Your task to perform on an android device: allow cookies in the chrome app Image 0: 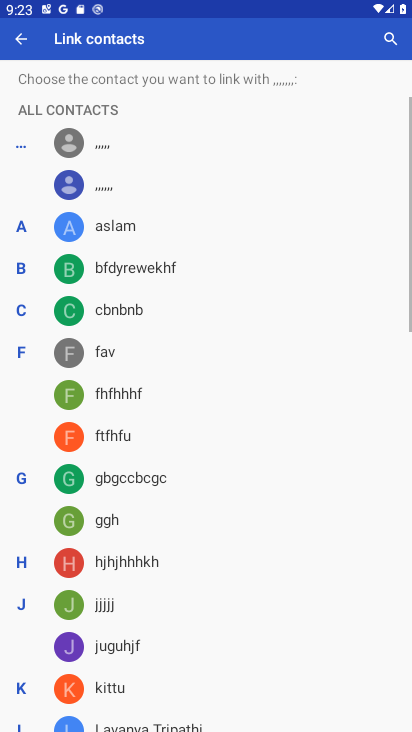
Step 0: press back button
Your task to perform on an android device: allow cookies in the chrome app Image 1: 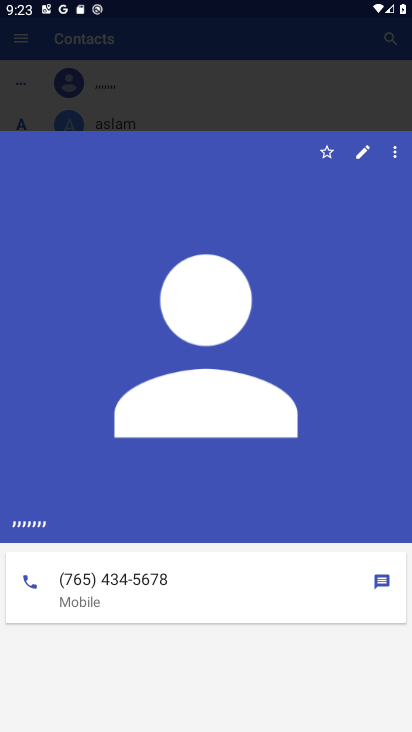
Step 1: press home button
Your task to perform on an android device: allow cookies in the chrome app Image 2: 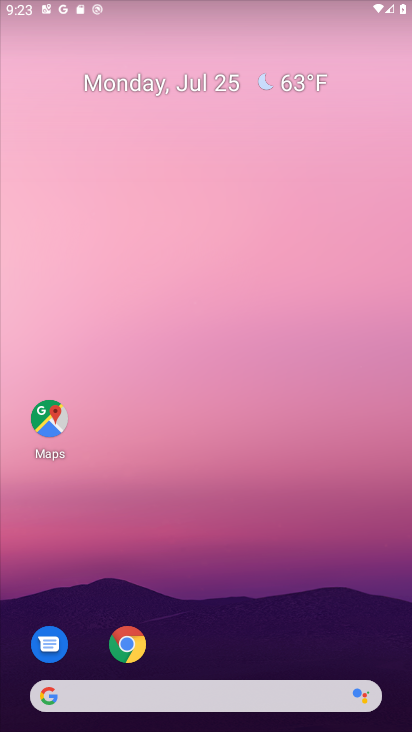
Step 2: drag from (263, 575) to (201, 176)
Your task to perform on an android device: allow cookies in the chrome app Image 3: 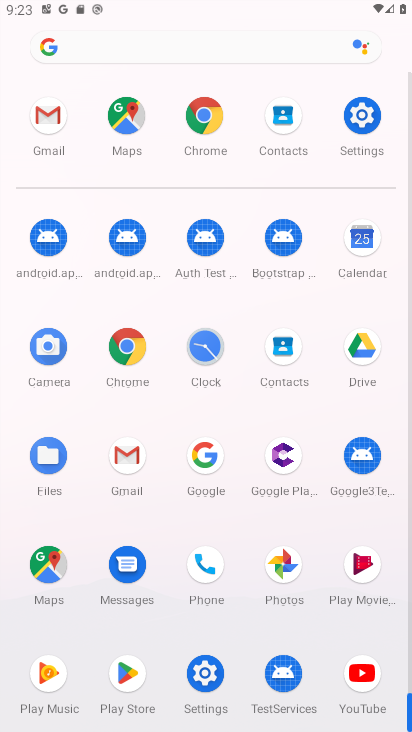
Step 3: click (200, 123)
Your task to perform on an android device: allow cookies in the chrome app Image 4: 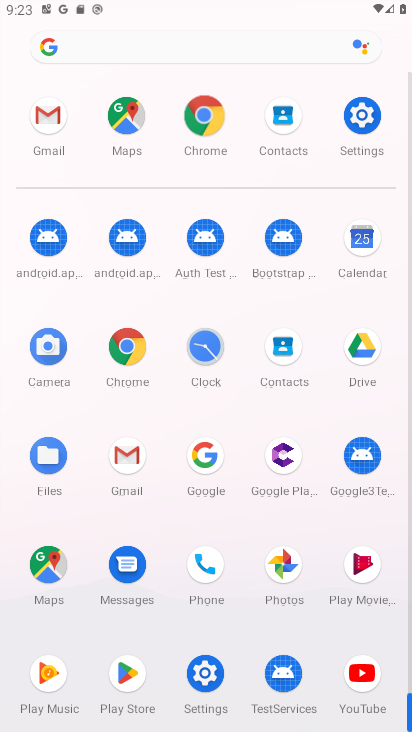
Step 4: click (205, 121)
Your task to perform on an android device: allow cookies in the chrome app Image 5: 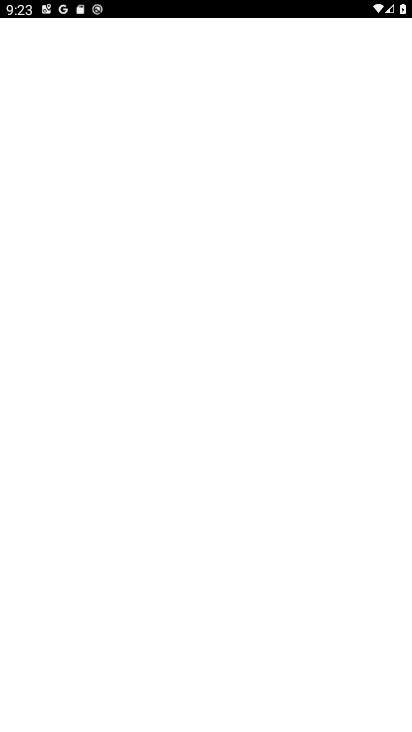
Step 5: click (206, 122)
Your task to perform on an android device: allow cookies in the chrome app Image 6: 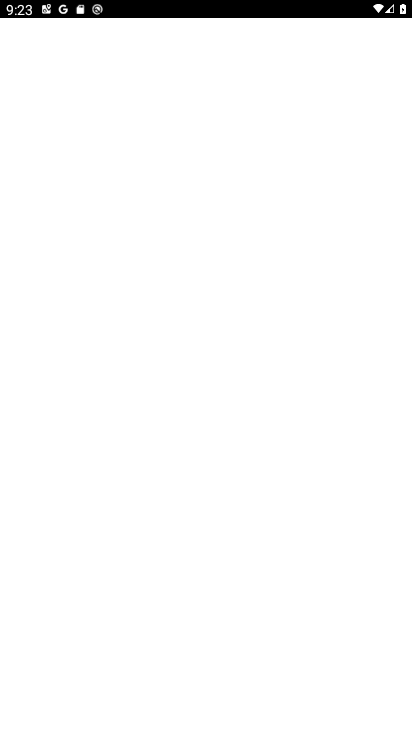
Step 6: click (206, 122)
Your task to perform on an android device: allow cookies in the chrome app Image 7: 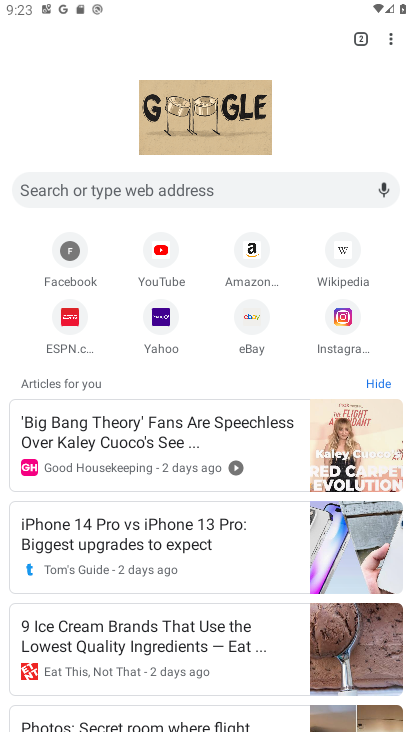
Step 7: click (383, 41)
Your task to perform on an android device: allow cookies in the chrome app Image 8: 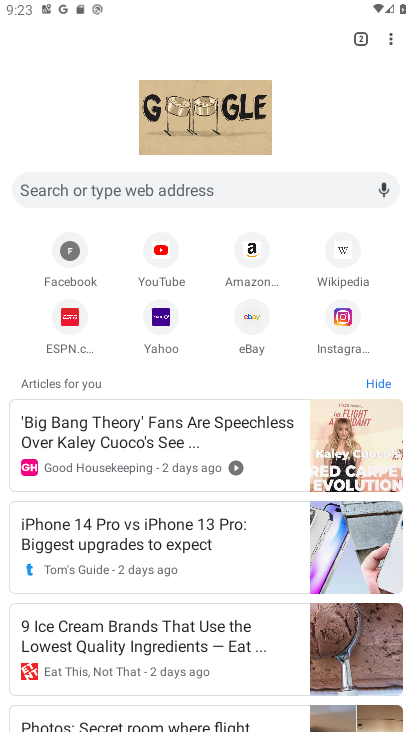
Step 8: click (393, 40)
Your task to perform on an android device: allow cookies in the chrome app Image 9: 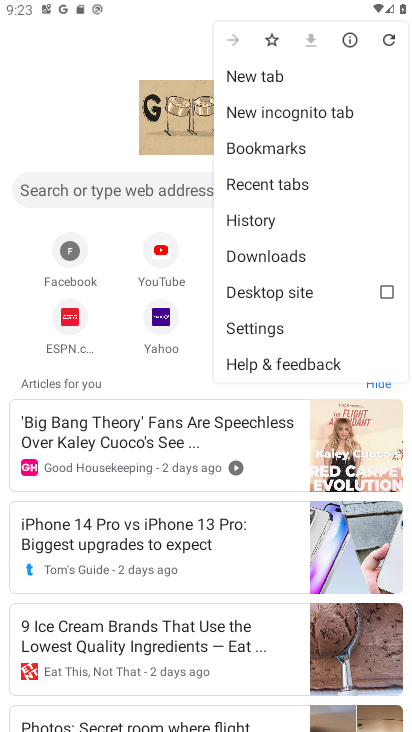
Step 9: click (262, 331)
Your task to perform on an android device: allow cookies in the chrome app Image 10: 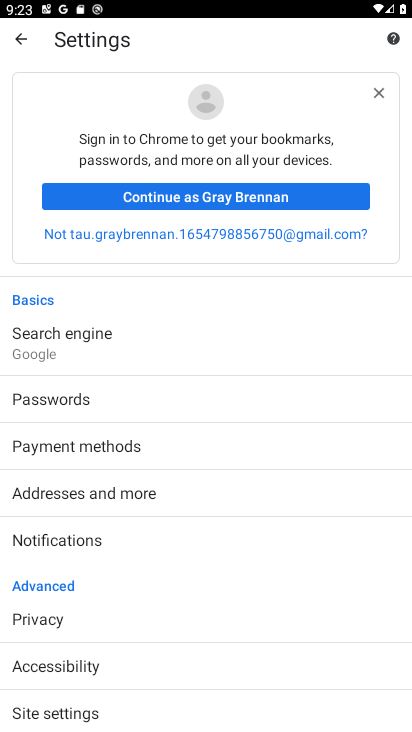
Step 10: drag from (119, 513) to (119, 258)
Your task to perform on an android device: allow cookies in the chrome app Image 11: 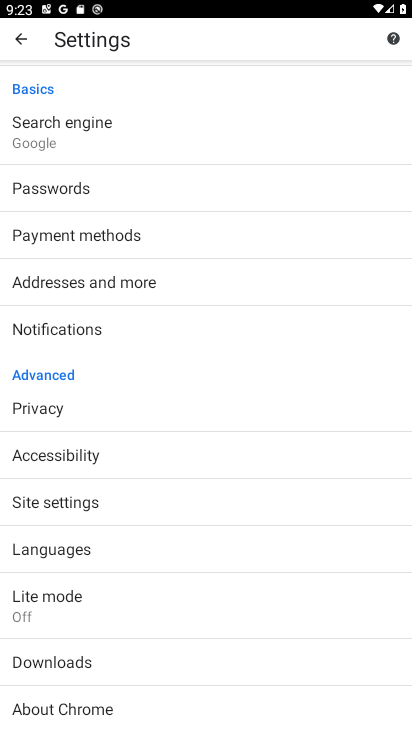
Step 11: click (36, 501)
Your task to perform on an android device: allow cookies in the chrome app Image 12: 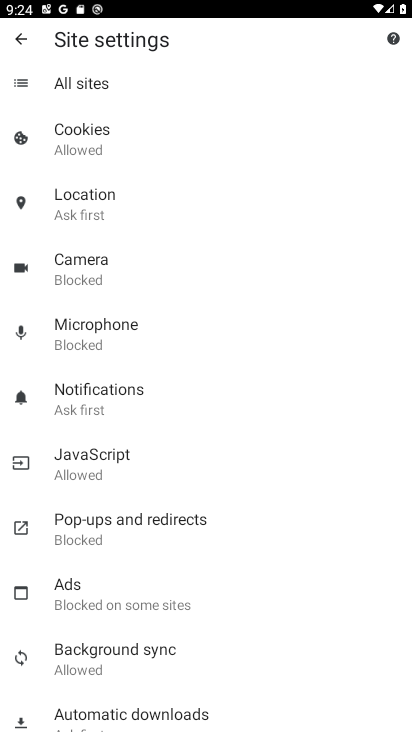
Step 12: click (86, 146)
Your task to perform on an android device: allow cookies in the chrome app Image 13: 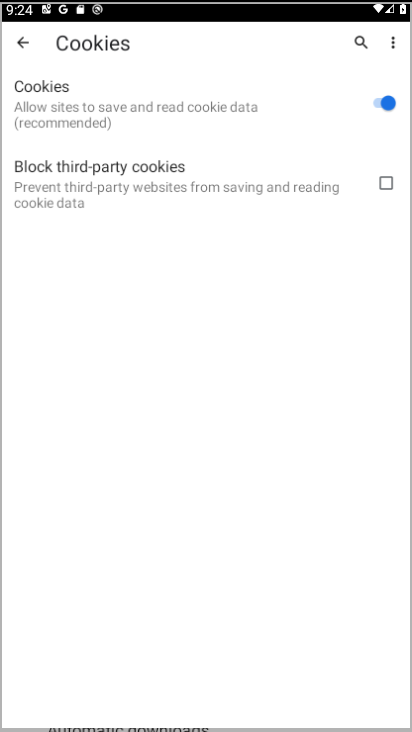
Step 13: click (90, 139)
Your task to perform on an android device: allow cookies in the chrome app Image 14: 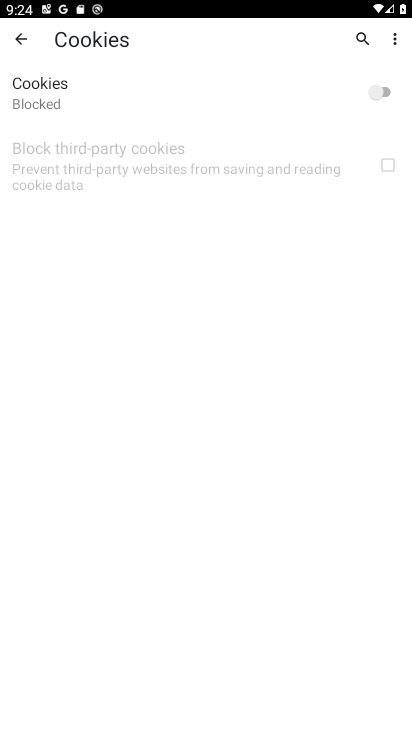
Step 14: click (365, 90)
Your task to perform on an android device: allow cookies in the chrome app Image 15: 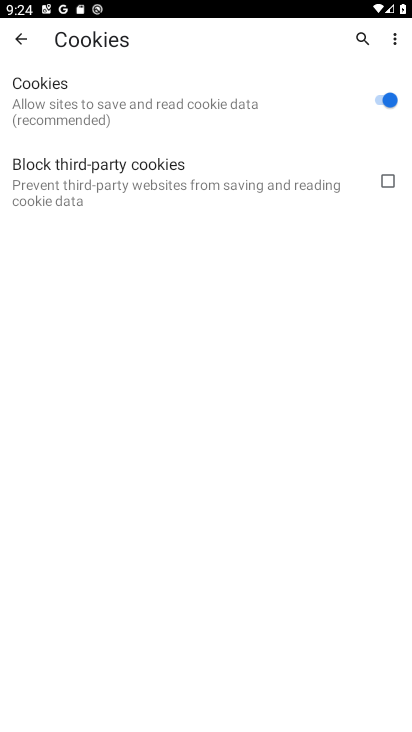
Step 15: task complete